Your task to perform on an android device: Go to Wikipedia Image 0: 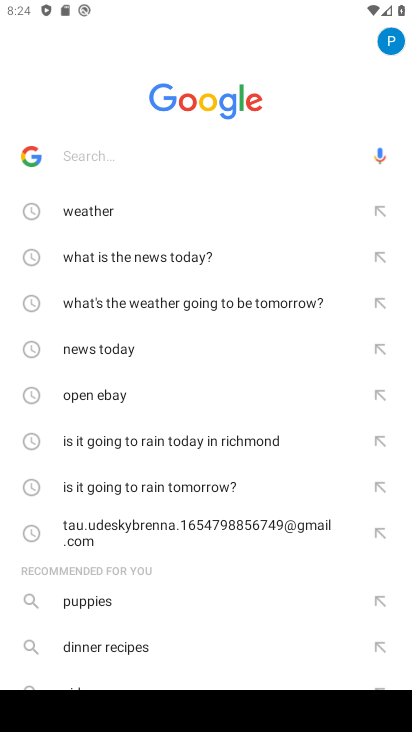
Step 0: press home button
Your task to perform on an android device: Go to Wikipedia Image 1: 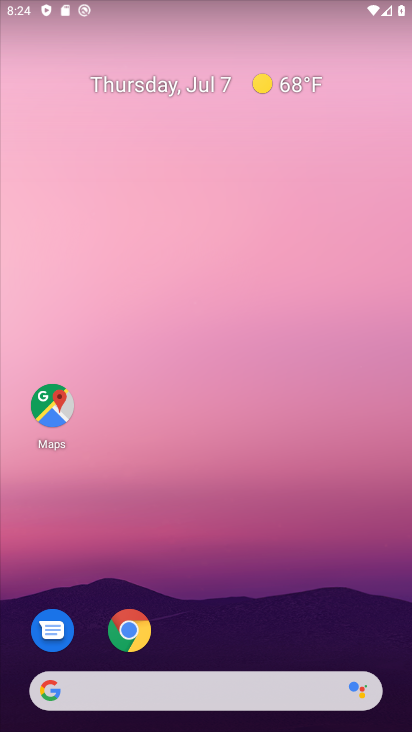
Step 1: click (130, 631)
Your task to perform on an android device: Go to Wikipedia Image 2: 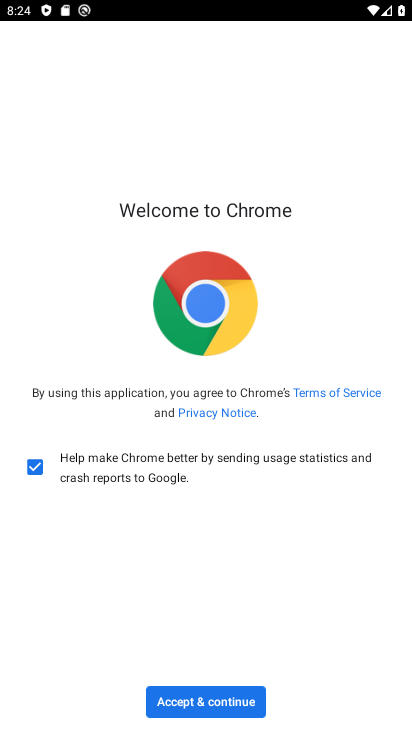
Step 2: click (179, 698)
Your task to perform on an android device: Go to Wikipedia Image 3: 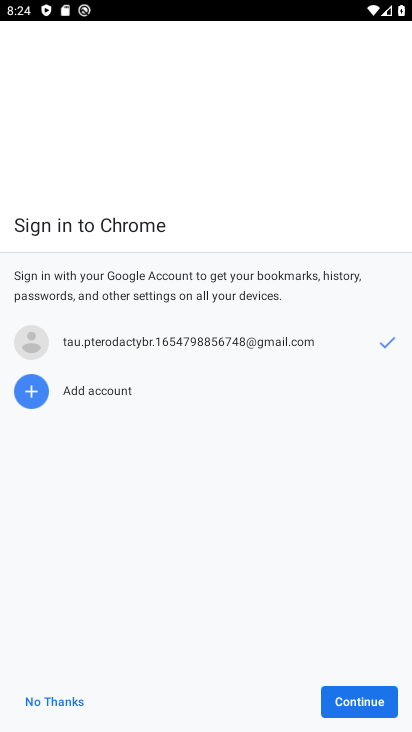
Step 3: click (355, 701)
Your task to perform on an android device: Go to Wikipedia Image 4: 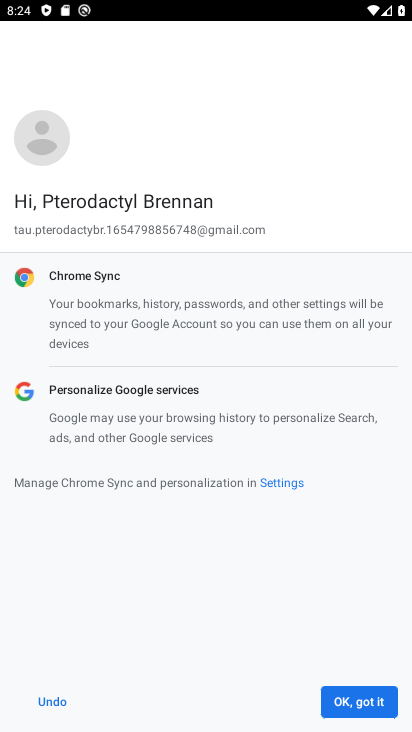
Step 4: click (355, 701)
Your task to perform on an android device: Go to Wikipedia Image 5: 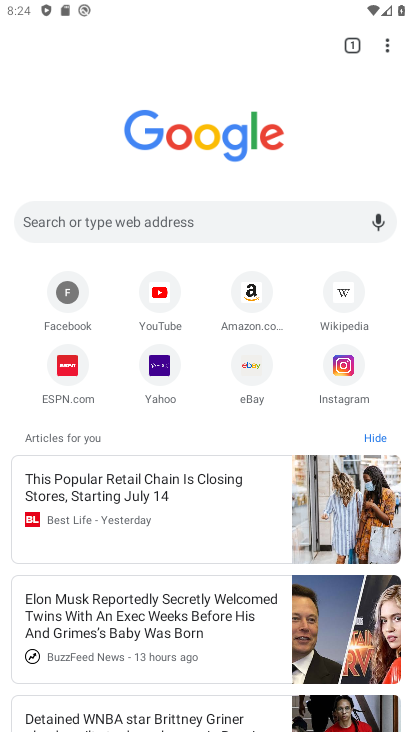
Step 5: click (349, 292)
Your task to perform on an android device: Go to Wikipedia Image 6: 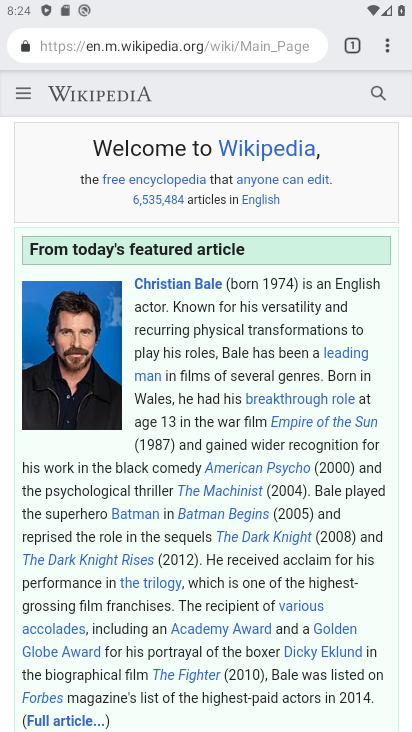
Step 6: task complete